Your task to perform on an android device: change timer sound Image 0: 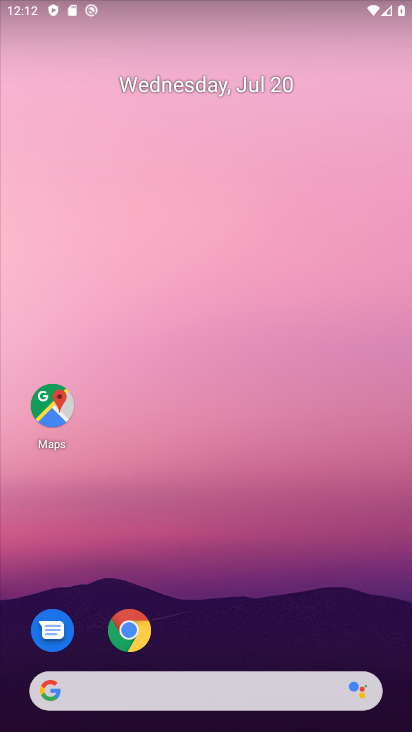
Step 0: drag from (30, 659) to (284, 143)
Your task to perform on an android device: change timer sound Image 1: 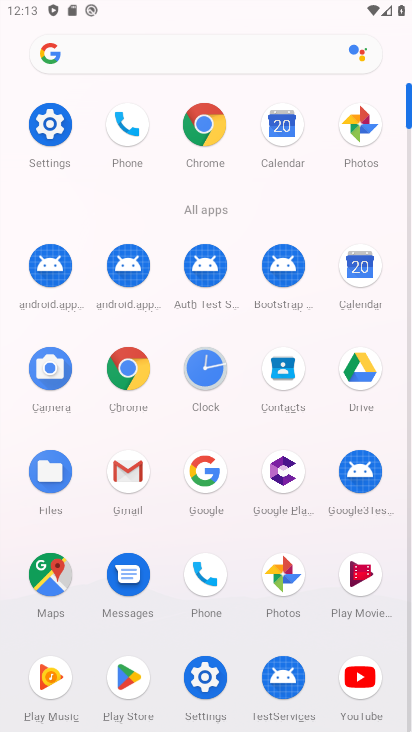
Step 1: click (188, 385)
Your task to perform on an android device: change timer sound Image 2: 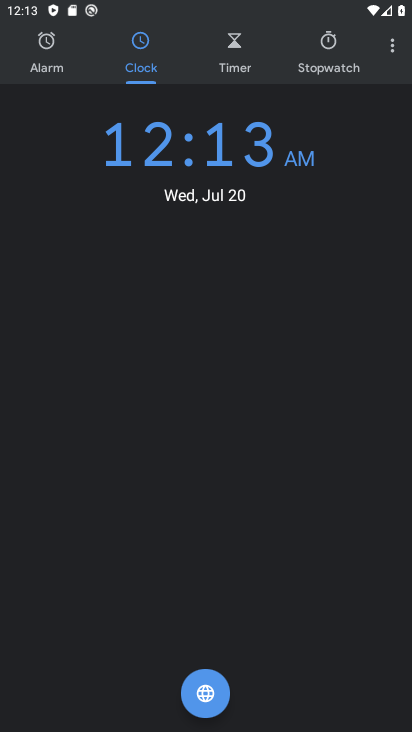
Step 2: click (393, 50)
Your task to perform on an android device: change timer sound Image 3: 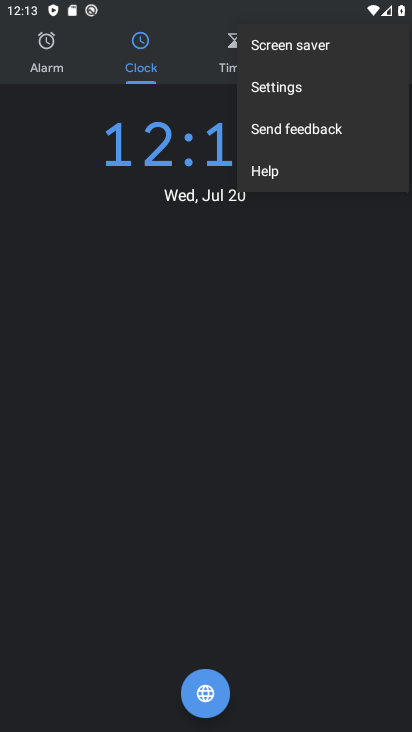
Step 3: click (305, 88)
Your task to perform on an android device: change timer sound Image 4: 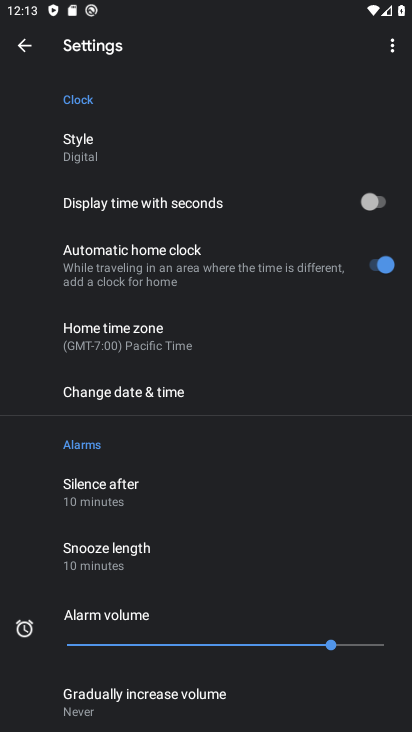
Step 4: drag from (13, 648) to (156, 245)
Your task to perform on an android device: change timer sound Image 5: 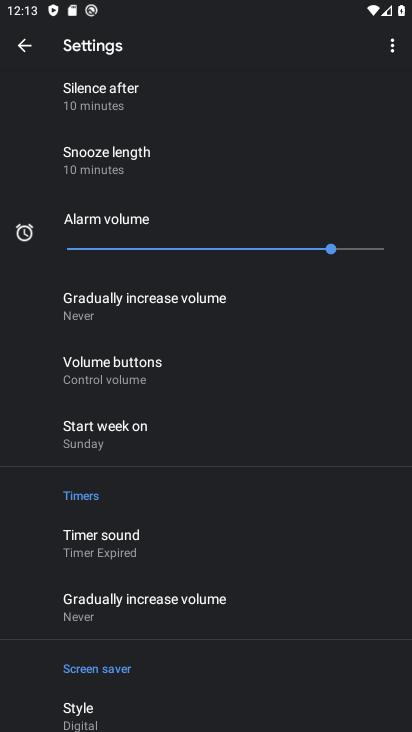
Step 5: drag from (23, 571) to (164, 259)
Your task to perform on an android device: change timer sound Image 6: 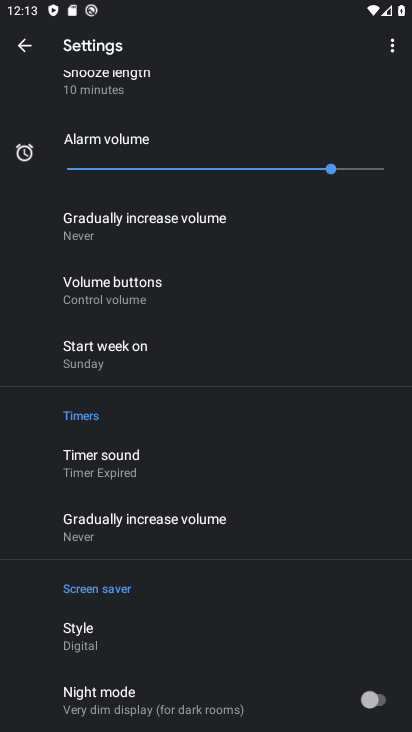
Step 6: click (97, 456)
Your task to perform on an android device: change timer sound Image 7: 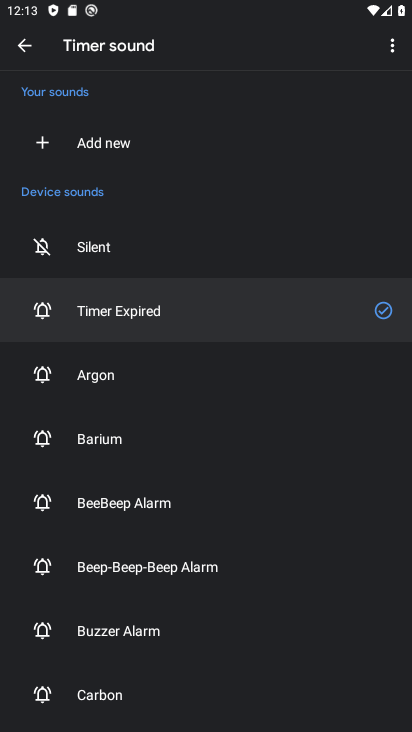
Step 7: click (212, 384)
Your task to perform on an android device: change timer sound Image 8: 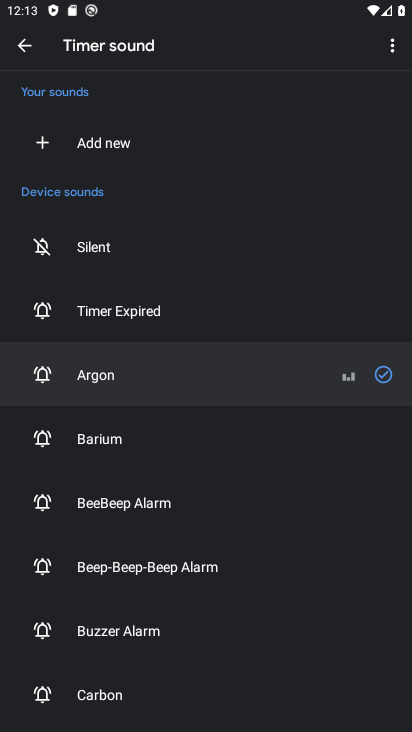
Step 8: task complete